Your task to perform on an android device: delete location history Image 0: 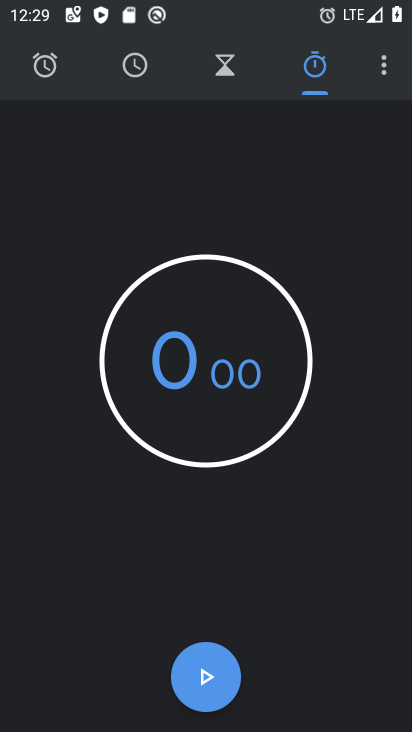
Step 0: press home button
Your task to perform on an android device: delete location history Image 1: 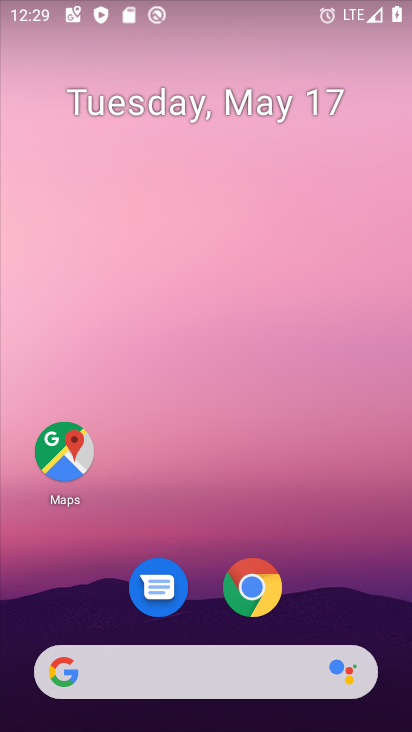
Step 1: drag from (388, 624) to (301, 69)
Your task to perform on an android device: delete location history Image 2: 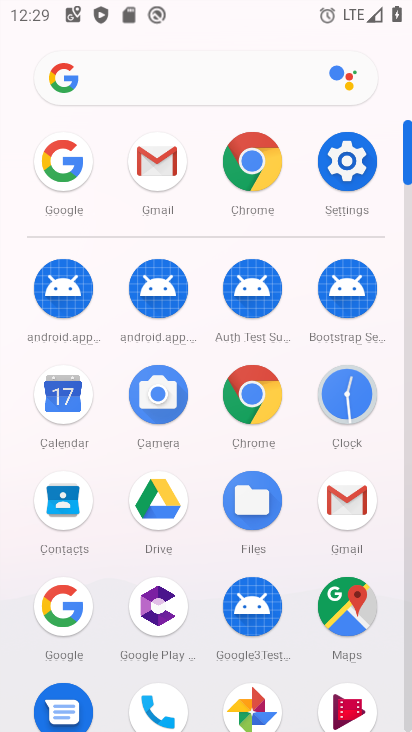
Step 2: click (344, 177)
Your task to perform on an android device: delete location history Image 3: 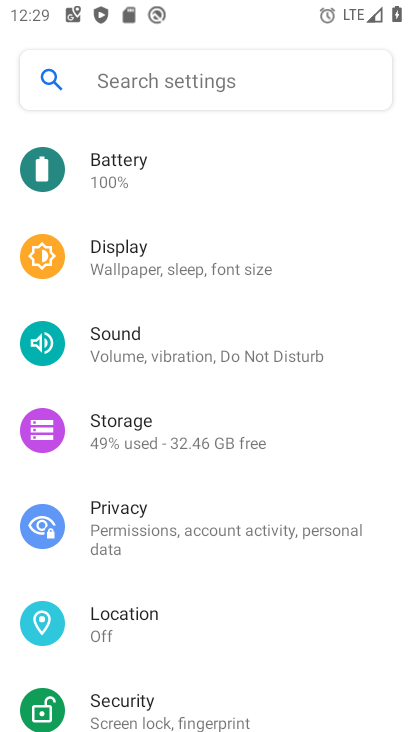
Step 3: drag from (160, 682) to (167, 490)
Your task to perform on an android device: delete location history Image 4: 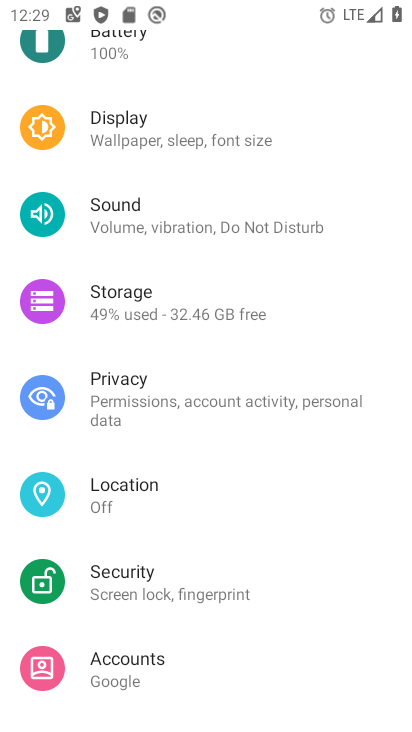
Step 4: click (176, 485)
Your task to perform on an android device: delete location history Image 5: 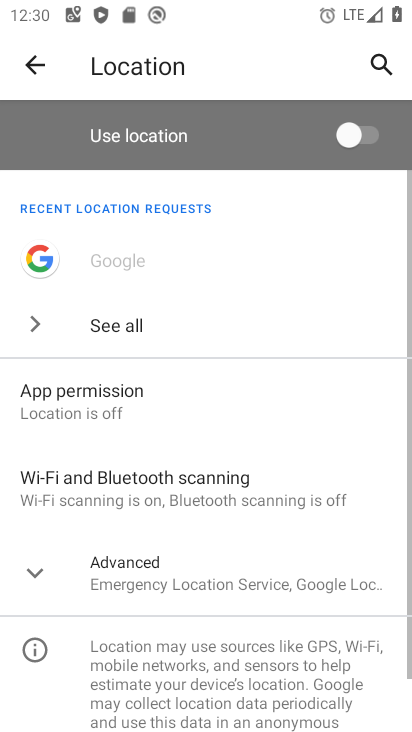
Step 5: click (167, 577)
Your task to perform on an android device: delete location history Image 6: 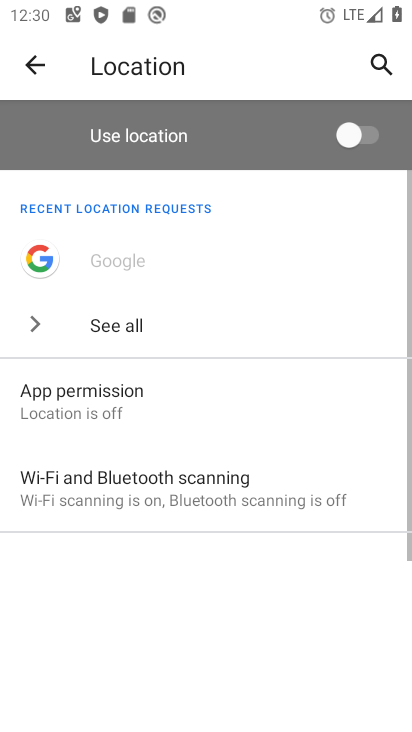
Step 6: drag from (169, 604) to (229, 336)
Your task to perform on an android device: delete location history Image 7: 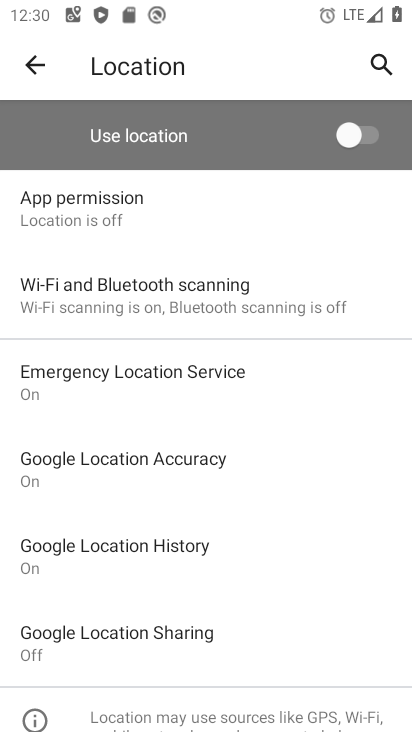
Step 7: click (203, 543)
Your task to perform on an android device: delete location history Image 8: 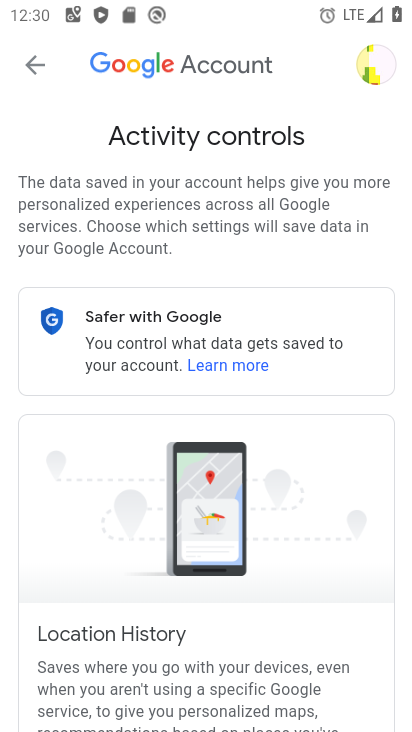
Step 8: drag from (310, 619) to (208, 168)
Your task to perform on an android device: delete location history Image 9: 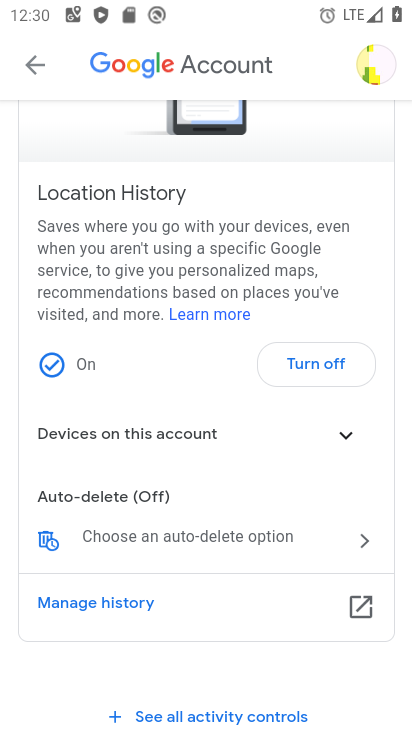
Step 9: click (203, 546)
Your task to perform on an android device: delete location history Image 10: 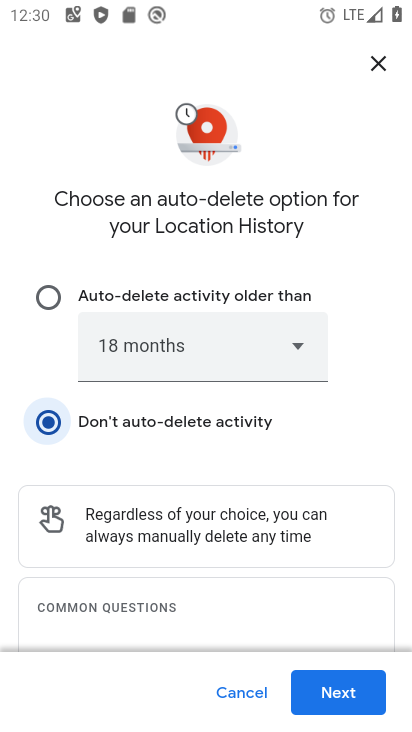
Step 10: click (343, 669)
Your task to perform on an android device: delete location history Image 11: 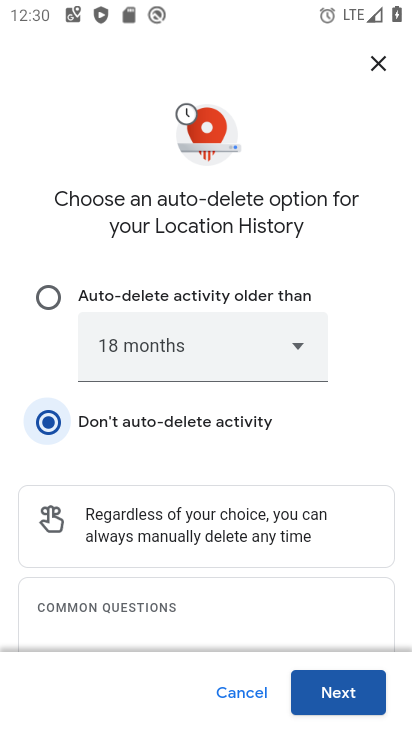
Step 11: click (336, 694)
Your task to perform on an android device: delete location history Image 12: 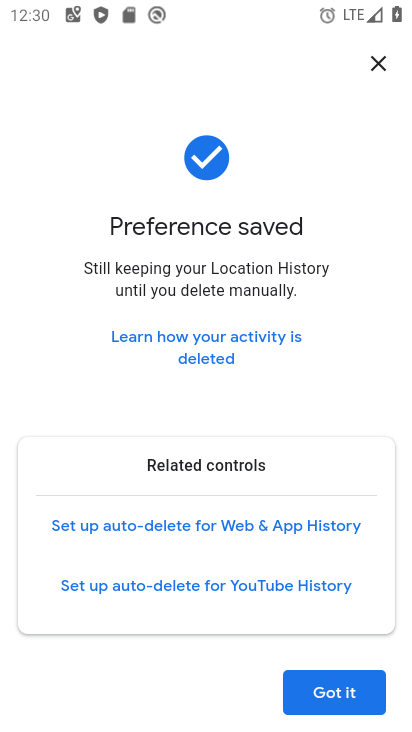
Step 12: click (327, 685)
Your task to perform on an android device: delete location history Image 13: 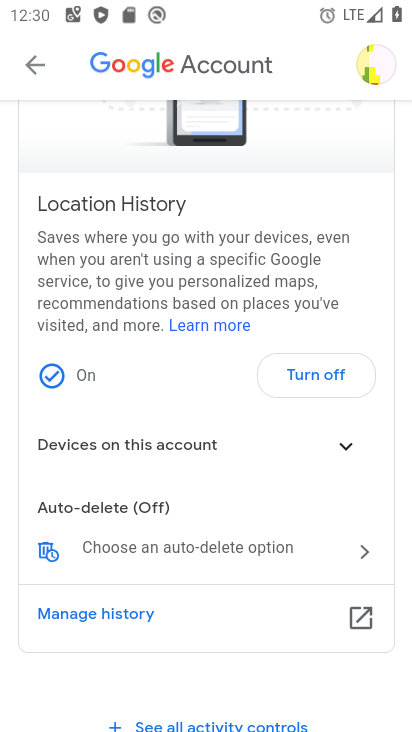
Step 13: task complete